Your task to perform on an android device: Open eBay Image 0: 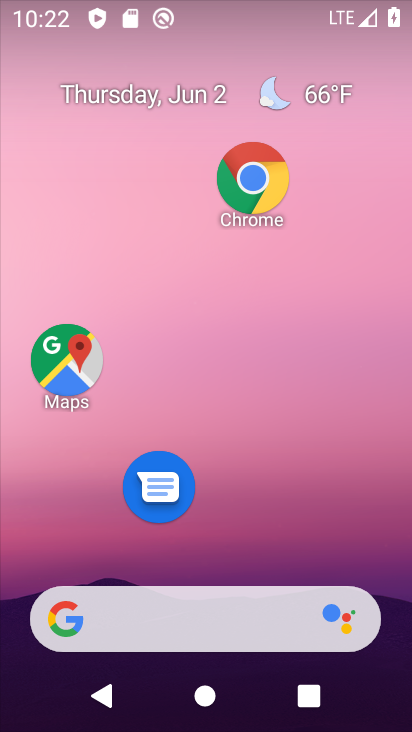
Step 0: drag from (234, 723) to (214, 24)
Your task to perform on an android device: Open eBay Image 1: 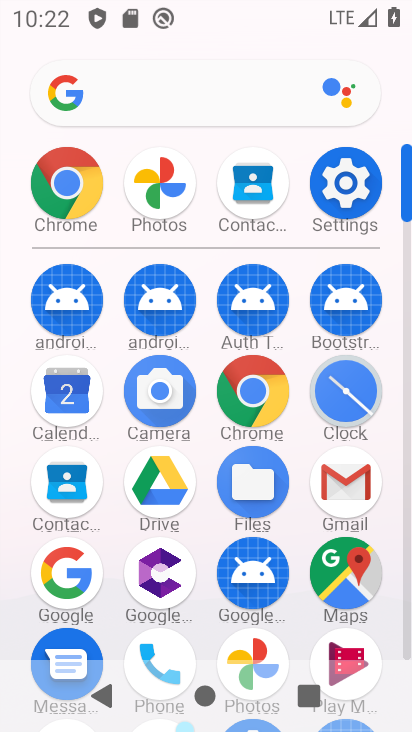
Step 1: click (256, 399)
Your task to perform on an android device: Open eBay Image 2: 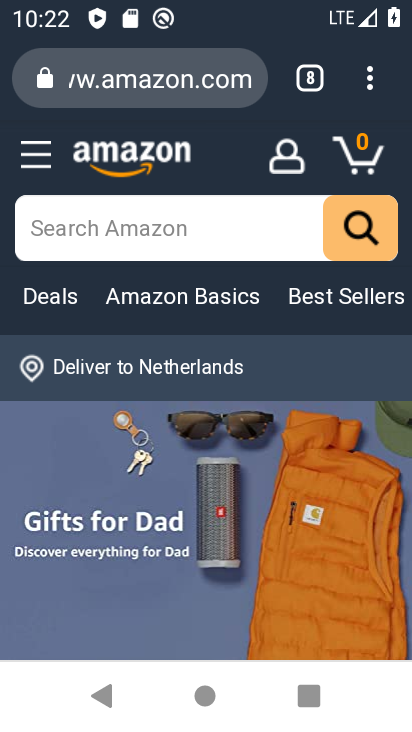
Step 2: click (371, 83)
Your task to perform on an android device: Open eBay Image 3: 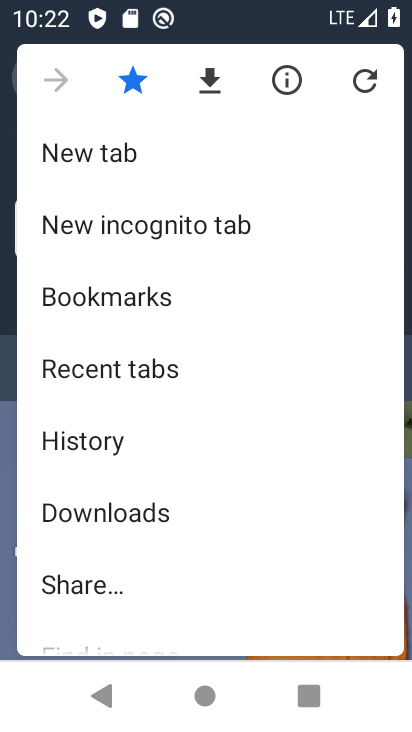
Step 3: click (100, 151)
Your task to perform on an android device: Open eBay Image 4: 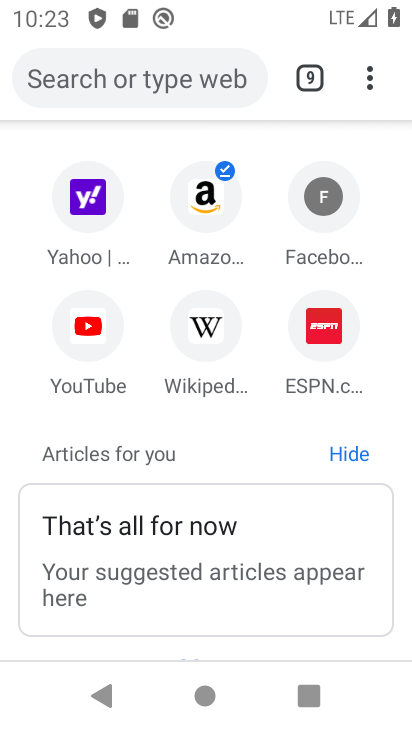
Step 4: click (139, 77)
Your task to perform on an android device: Open eBay Image 5: 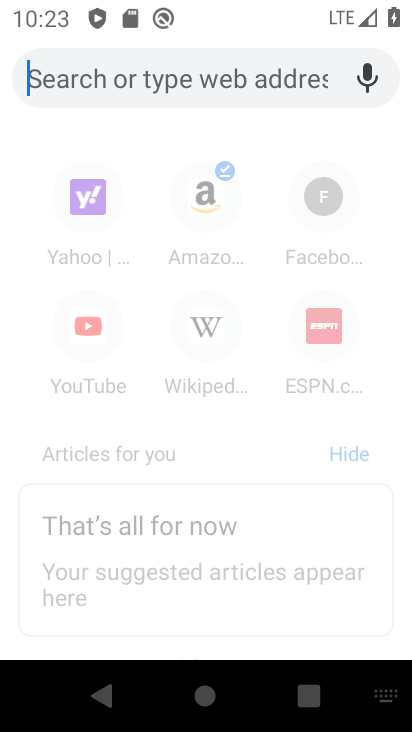
Step 5: type "eBay"
Your task to perform on an android device: Open eBay Image 6: 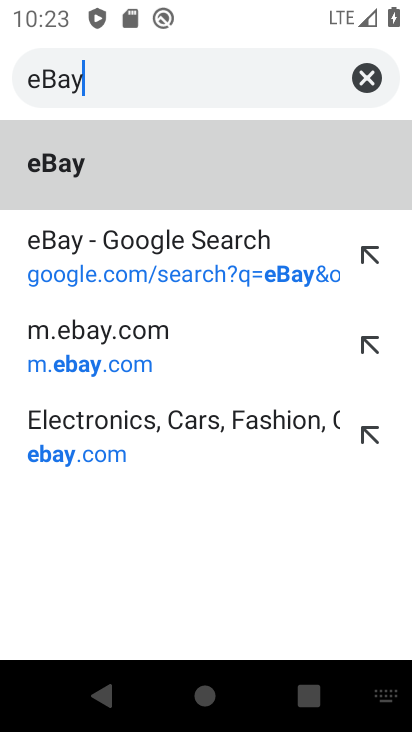
Step 6: click (46, 169)
Your task to perform on an android device: Open eBay Image 7: 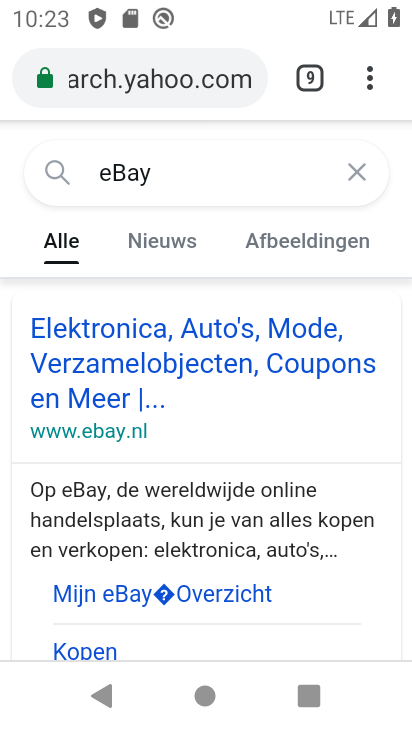
Step 7: click (88, 343)
Your task to perform on an android device: Open eBay Image 8: 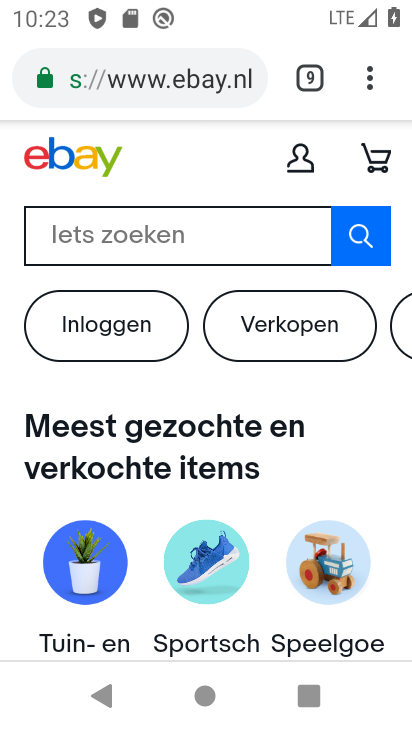
Step 8: task complete